Your task to perform on an android device: Go to eBay Image 0: 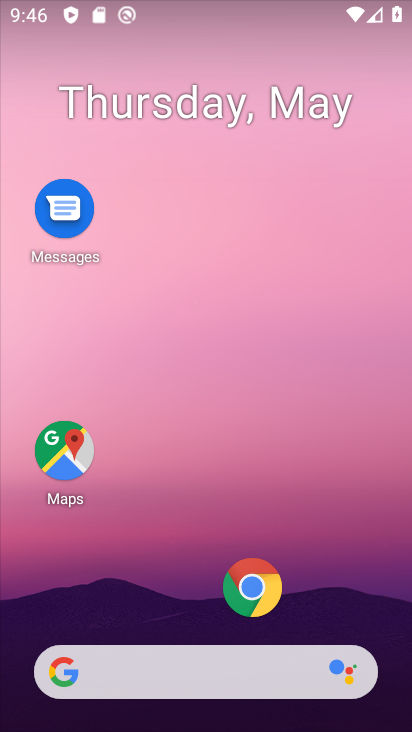
Step 0: click (250, 595)
Your task to perform on an android device: Go to eBay Image 1: 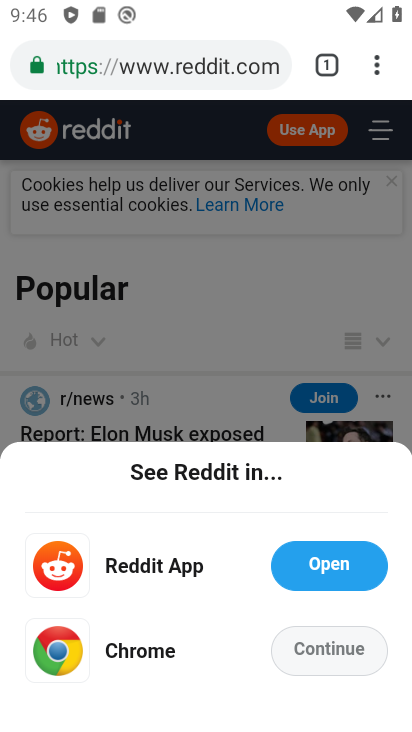
Step 1: click (314, 638)
Your task to perform on an android device: Go to eBay Image 2: 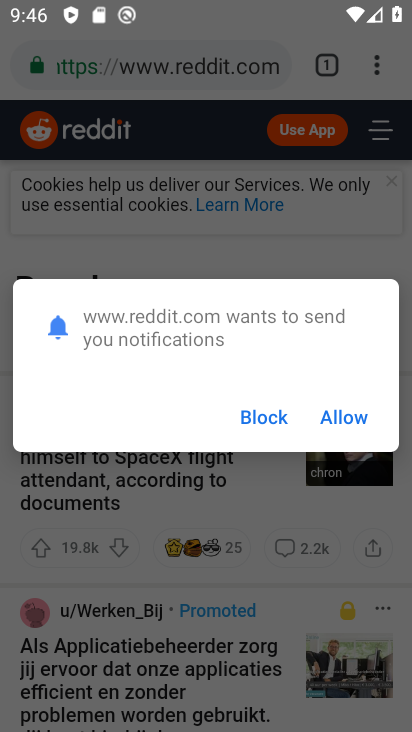
Step 2: click (358, 413)
Your task to perform on an android device: Go to eBay Image 3: 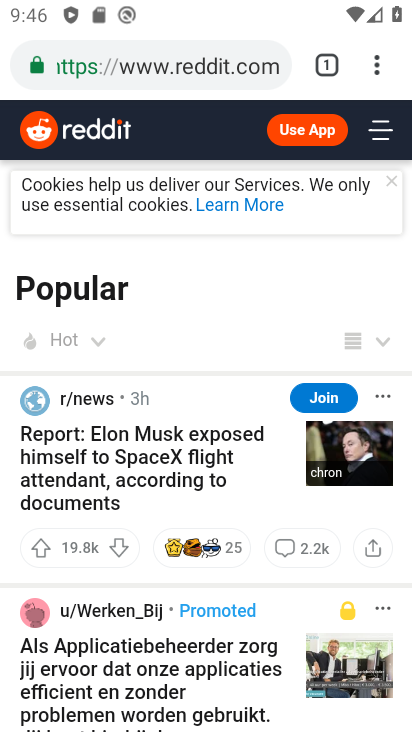
Step 3: click (317, 70)
Your task to perform on an android device: Go to eBay Image 4: 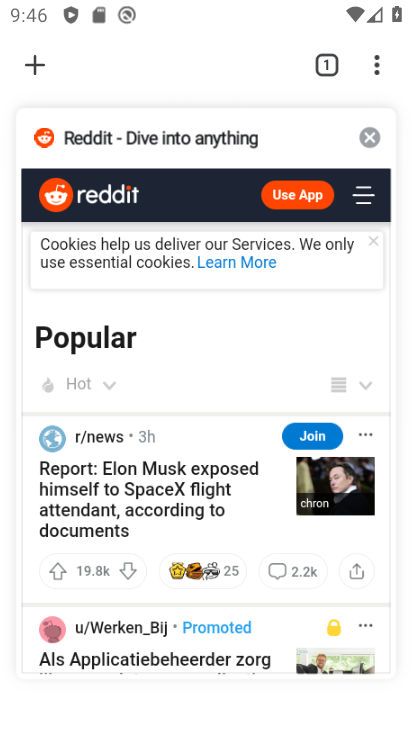
Step 4: click (41, 58)
Your task to perform on an android device: Go to eBay Image 5: 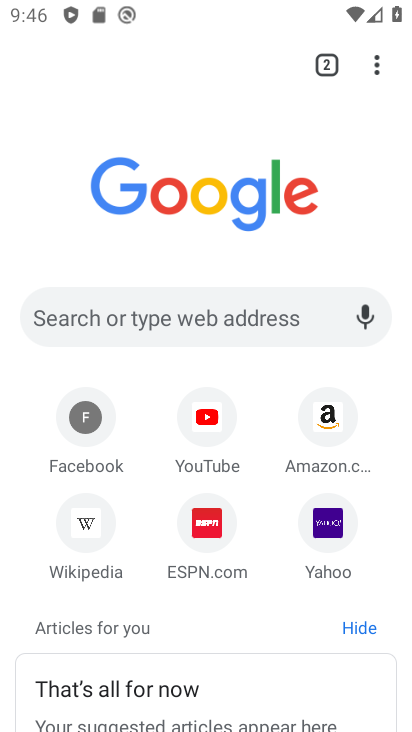
Step 5: click (216, 293)
Your task to perform on an android device: Go to eBay Image 6: 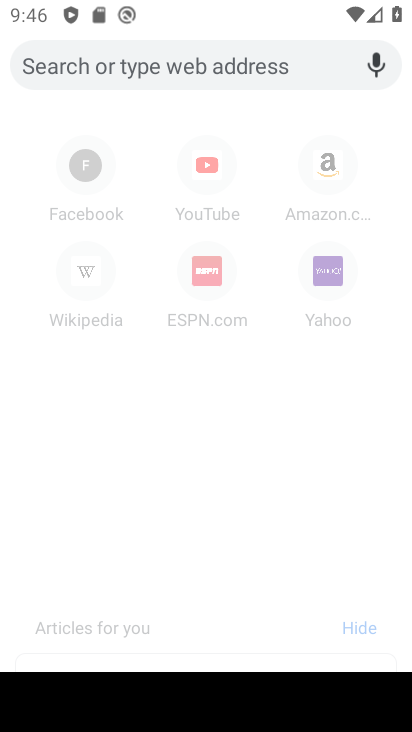
Step 6: type "ebay"
Your task to perform on an android device: Go to eBay Image 7: 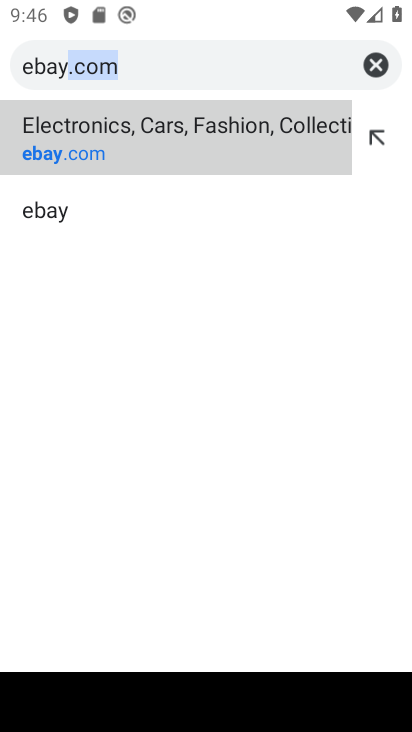
Step 7: click (265, 153)
Your task to perform on an android device: Go to eBay Image 8: 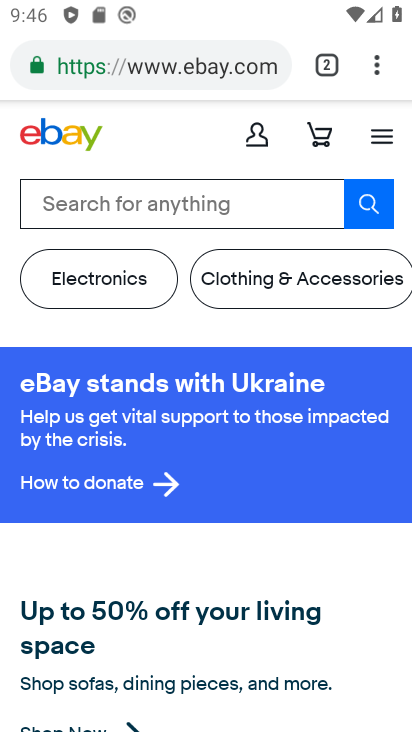
Step 8: task complete